Your task to perform on an android device: turn off javascript in the chrome app Image 0: 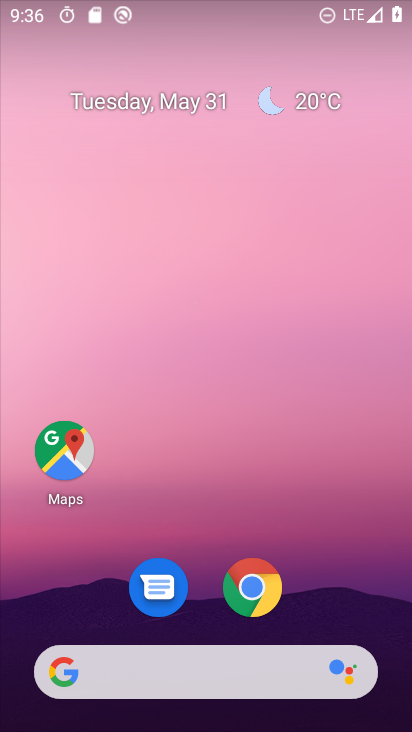
Step 0: click (261, 577)
Your task to perform on an android device: turn off javascript in the chrome app Image 1: 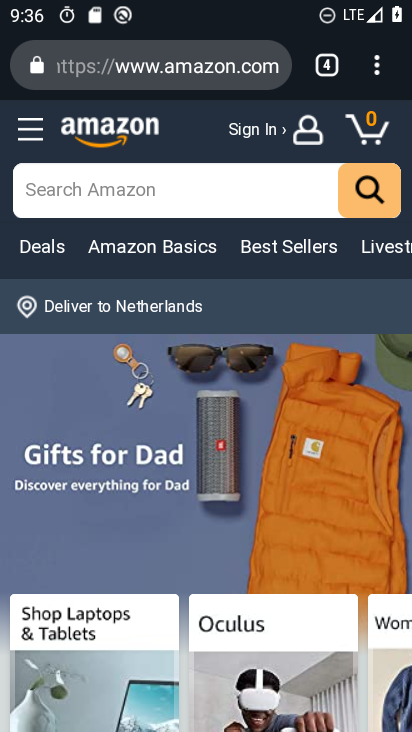
Step 1: click (392, 68)
Your task to perform on an android device: turn off javascript in the chrome app Image 2: 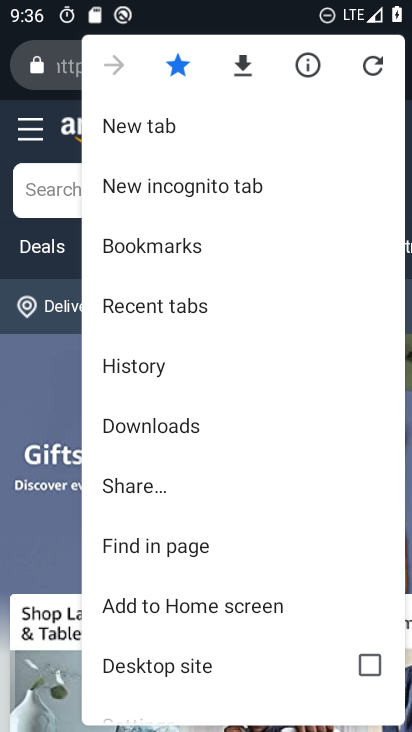
Step 2: drag from (174, 695) to (269, 89)
Your task to perform on an android device: turn off javascript in the chrome app Image 3: 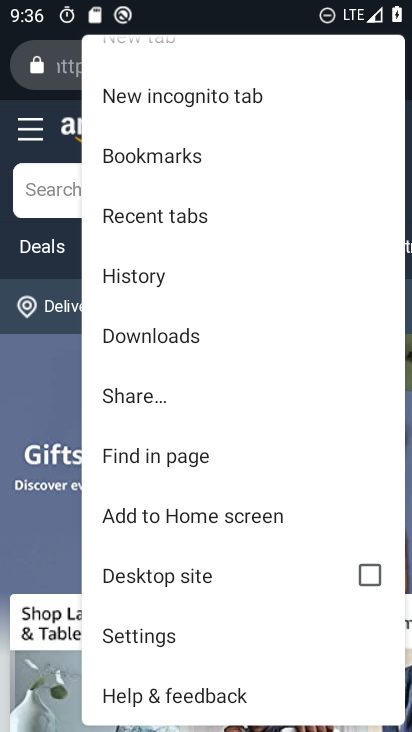
Step 3: click (164, 641)
Your task to perform on an android device: turn off javascript in the chrome app Image 4: 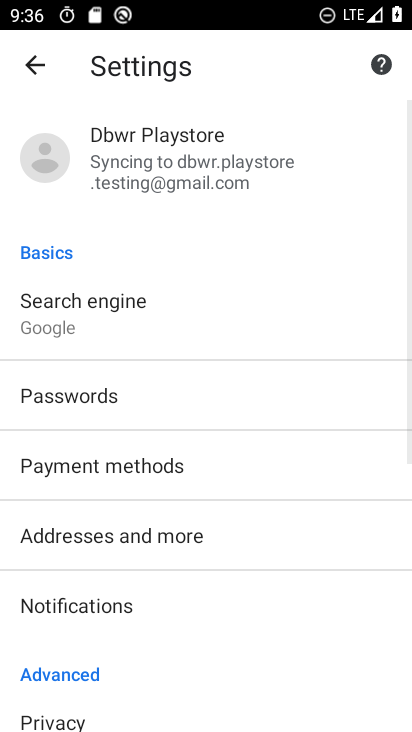
Step 4: drag from (164, 641) to (264, 105)
Your task to perform on an android device: turn off javascript in the chrome app Image 5: 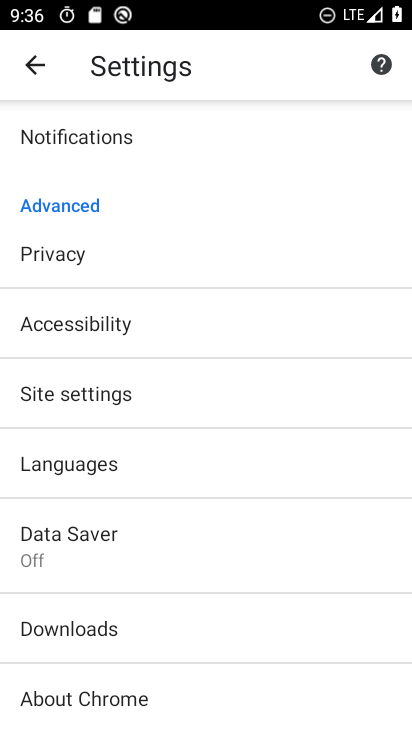
Step 5: click (107, 380)
Your task to perform on an android device: turn off javascript in the chrome app Image 6: 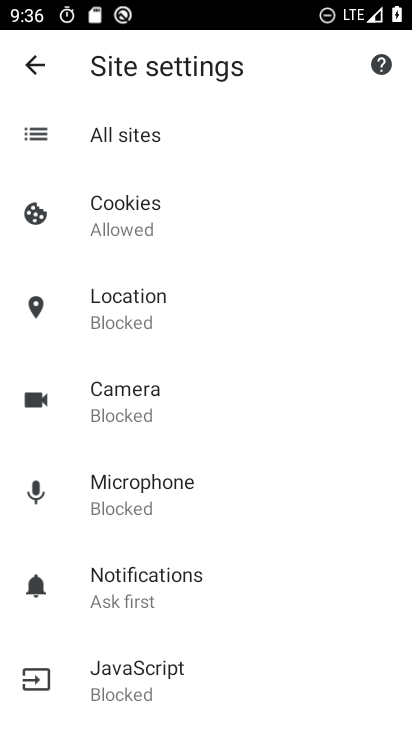
Step 6: click (119, 674)
Your task to perform on an android device: turn off javascript in the chrome app Image 7: 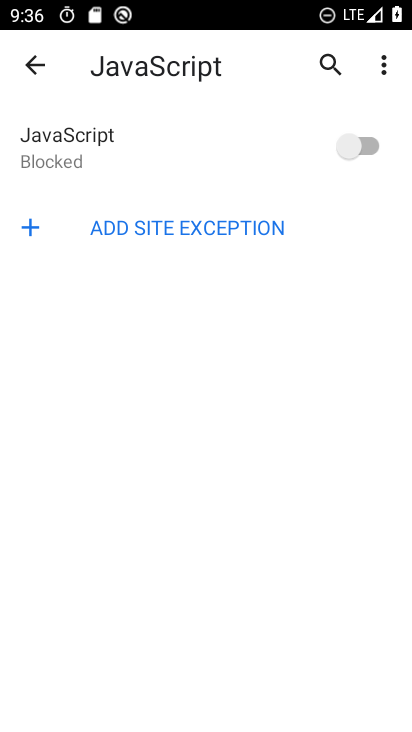
Step 7: task complete